Your task to perform on an android device: Search for sushi restaurants on Maps Image 0: 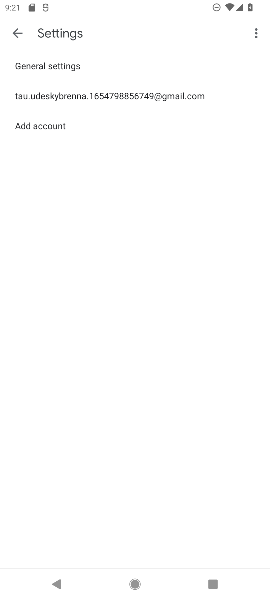
Step 0: press home button
Your task to perform on an android device: Search for sushi restaurants on Maps Image 1: 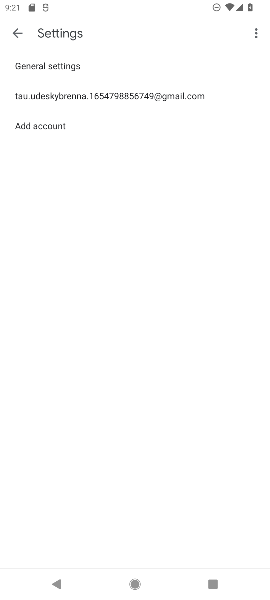
Step 1: drag from (184, 318) to (232, 107)
Your task to perform on an android device: Search for sushi restaurants on Maps Image 2: 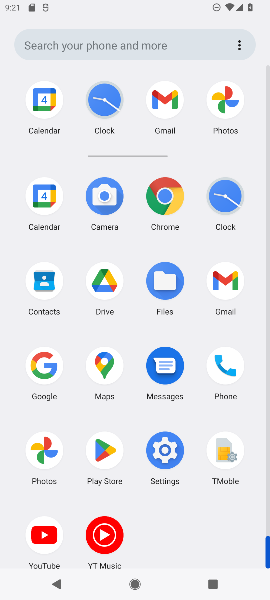
Step 2: click (101, 355)
Your task to perform on an android device: Search for sushi restaurants on Maps Image 3: 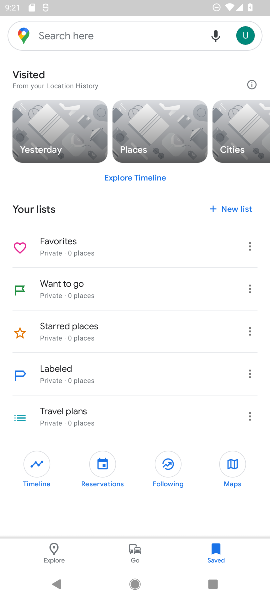
Step 3: click (91, 28)
Your task to perform on an android device: Search for sushi restaurants on Maps Image 4: 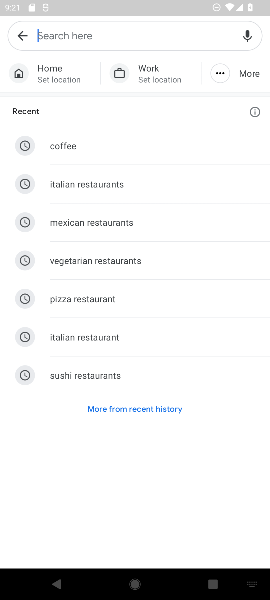
Step 4: click (59, 377)
Your task to perform on an android device: Search for sushi restaurants on Maps Image 5: 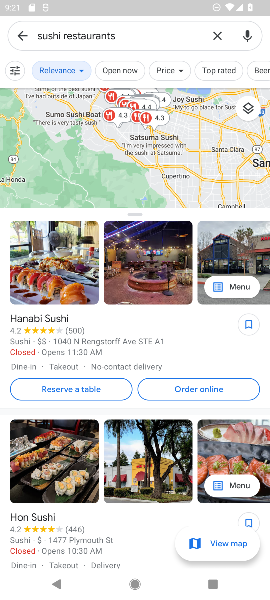
Step 5: task complete